Your task to perform on an android device: Open maps Image 0: 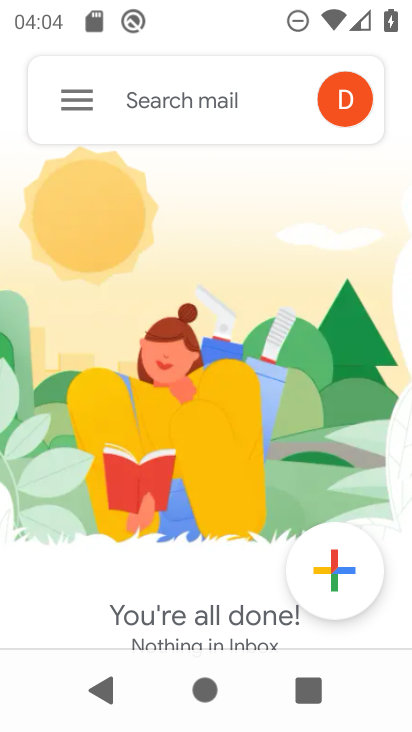
Step 0: press home button
Your task to perform on an android device: Open maps Image 1: 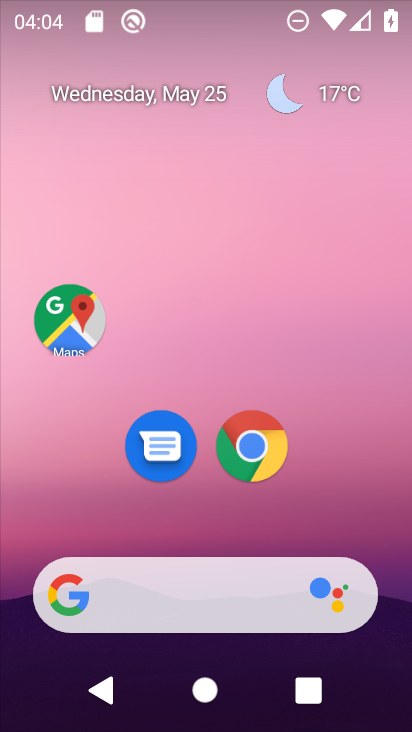
Step 1: click (55, 325)
Your task to perform on an android device: Open maps Image 2: 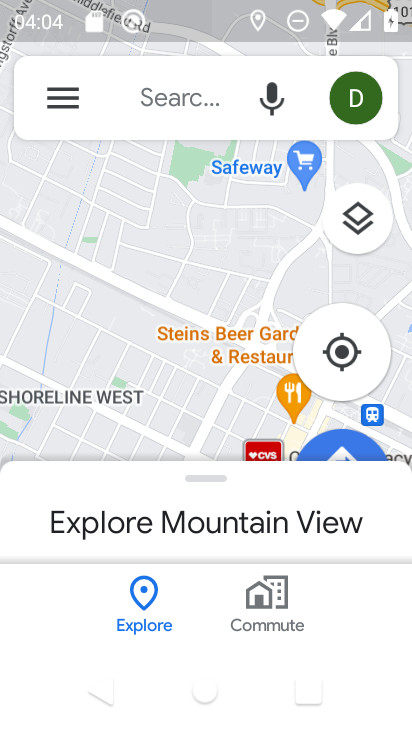
Step 2: press home button
Your task to perform on an android device: Open maps Image 3: 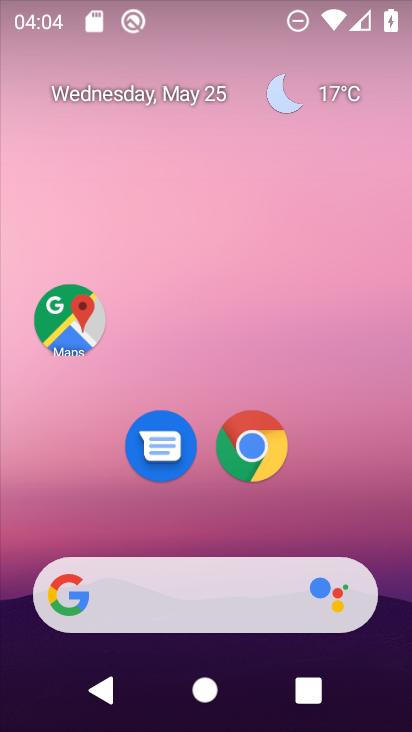
Step 3: click (69, 311)
Your task to perform on an android device: Open maps Image 4: 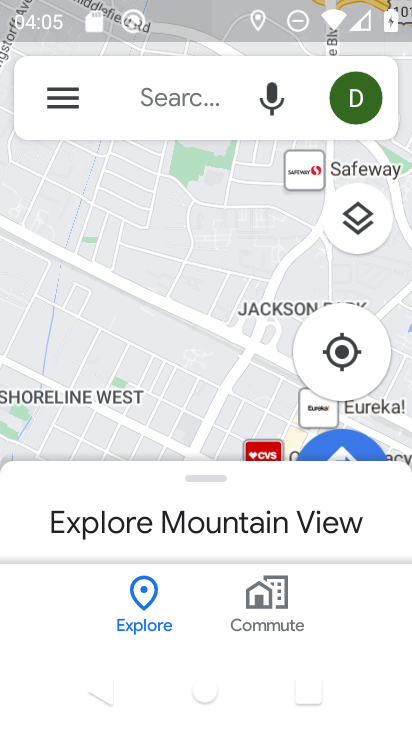
Step 4: task complete